Your task to perform on an android device: Open Reddit.com Image 0: 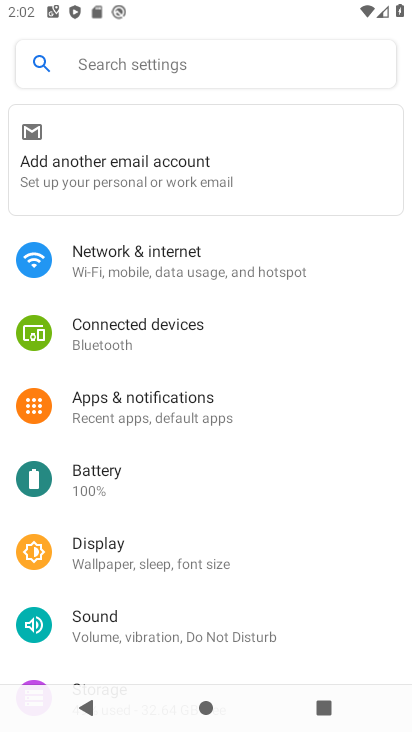
Step 0: press home button
Your task to perform on an android device: Open Reddit.com Image 1: 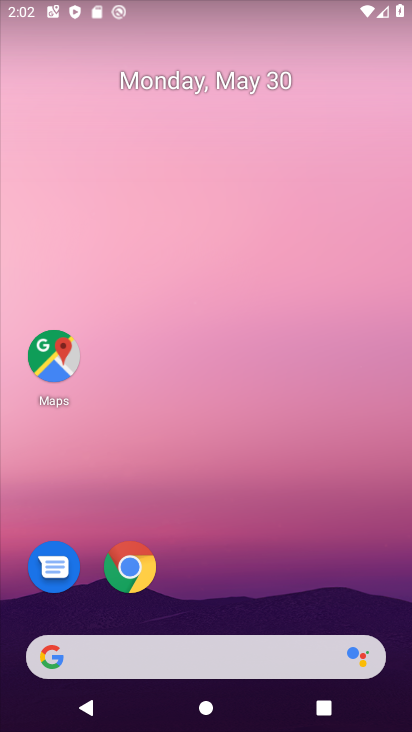
Step 1: click (129, 563)
Your task to perform on an android device: Open Reddit.com Image 2: 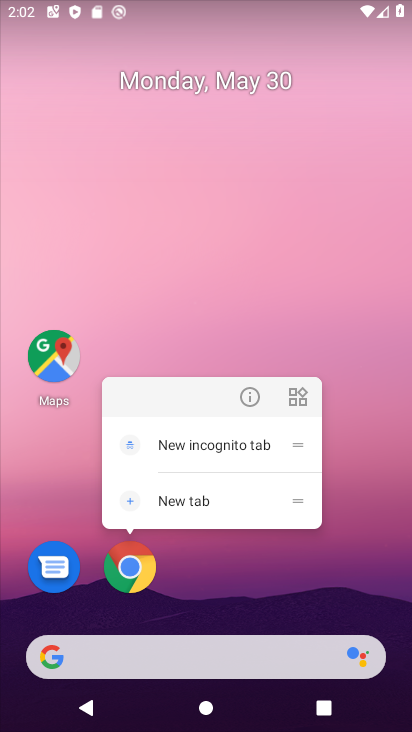
Step 2: click (139, 556)
Your task to perform on an android device: Open Reddit.com Image 3: 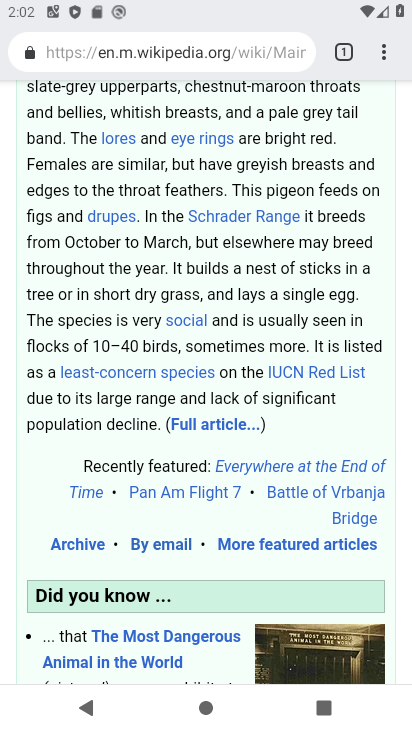
Step 3: drag from (218, 241) to (217, 523)
Your task to perform on an android device: Open Reddit.com Image 4: 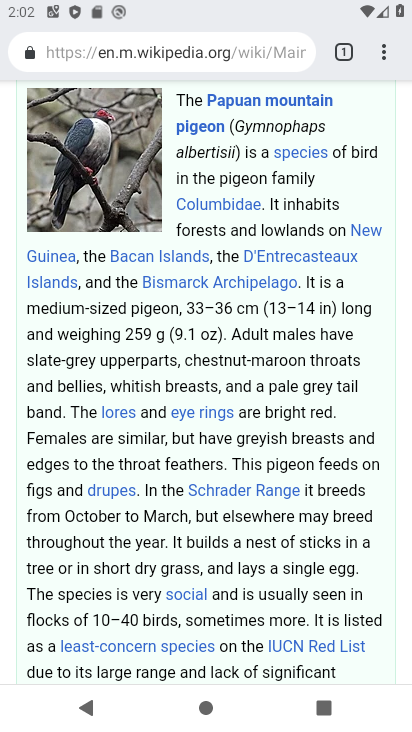
Step 4: click (183, 43)
Your task to perform on an android device: Open Reddit.com Image 5: 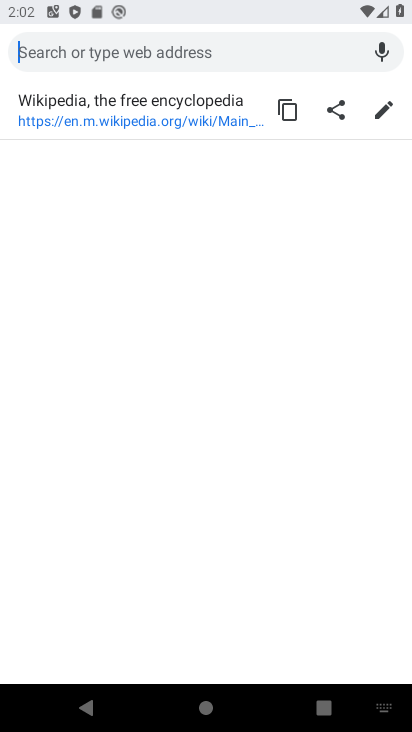
Step 5: type "Reddit.com"
Your task to perform on an android device: Open Reddit.com Image 6: 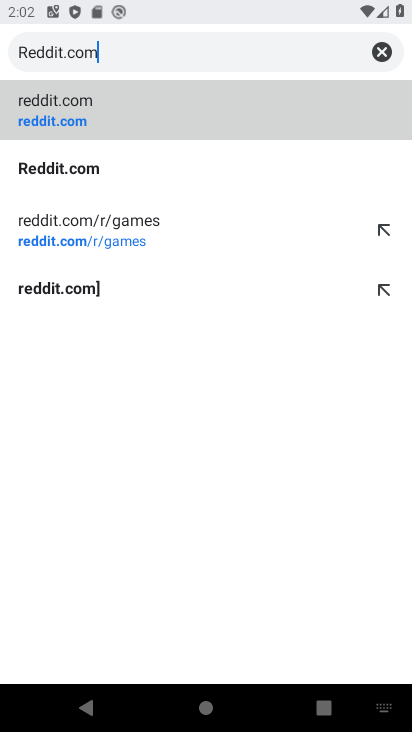
Step 6: click (77, 119)
Your task to perform on an android device: Open Reddit.com Image 7: 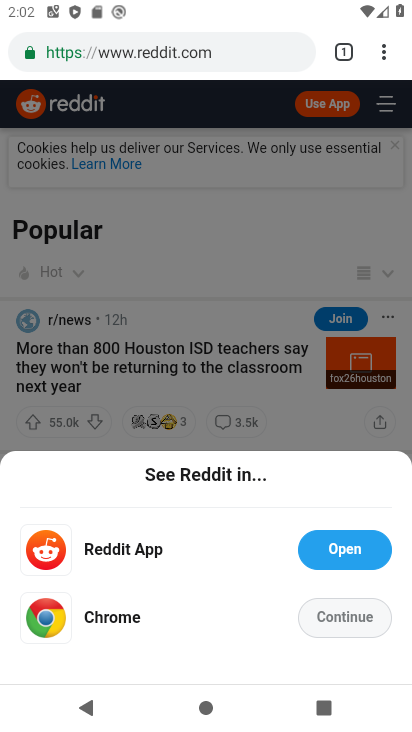
Step 7: task complete